Your task to perform on an android device: change notification settings in the gmail app Image 0: 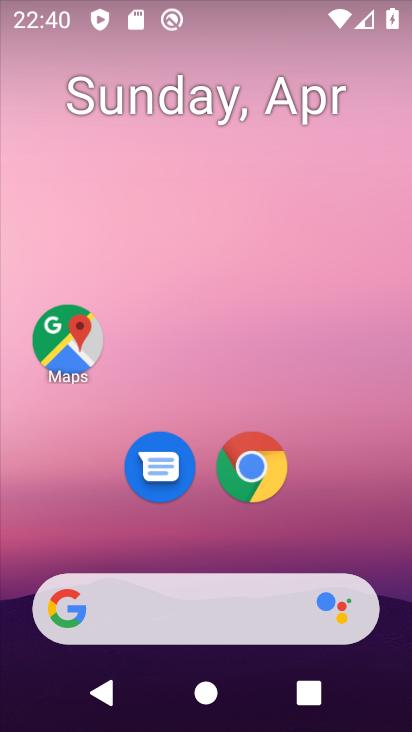
Step 0: drag from (203, 530) to (218, 70)
Your task to perform on an android device: change notification settings in the gmail app Image 1: 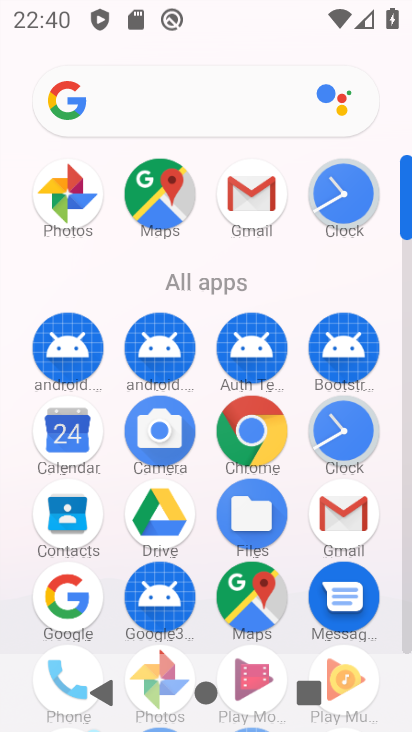
Step 1: click (249, 195)
Your task to perform on an android device: change notification settings in the gmail app Image 2: 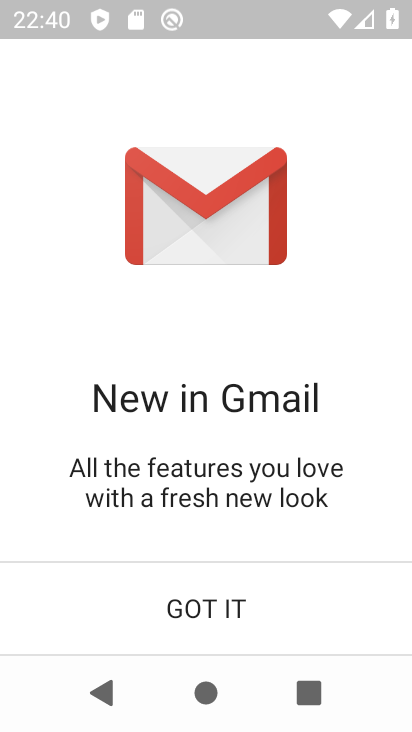
Step 2: click (191, 610)
Your task to perform on an android device: change notification settings in the gmail app Image 3: 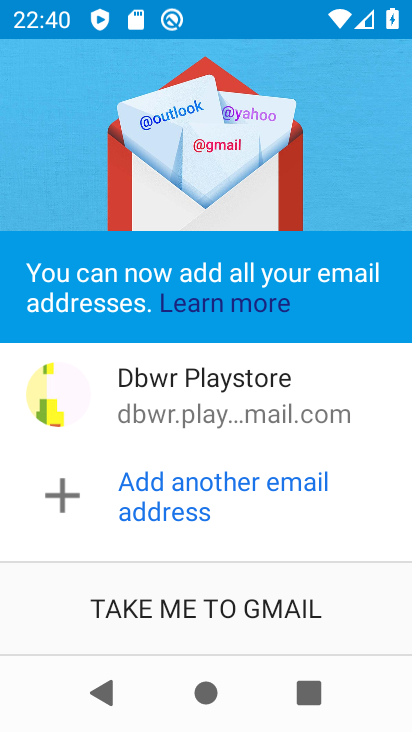
Step 3: click (191, 598)
Your task to perform on an android device: change notification settings in the gmail app Image 4: 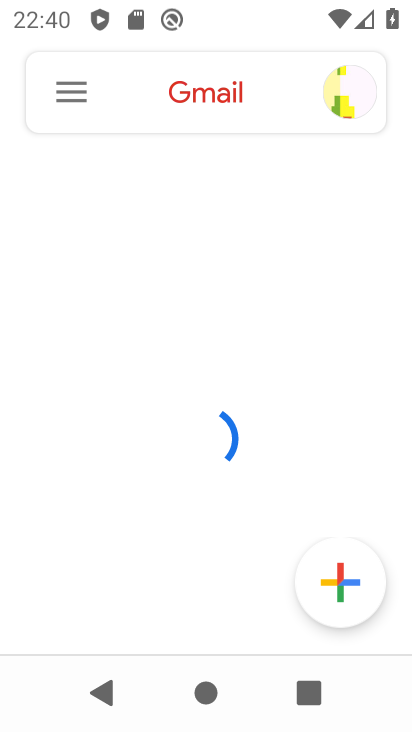
Step 4: click (68, 86)
Your task to perform on an android device: change notification settings in the gmail app Image 5: 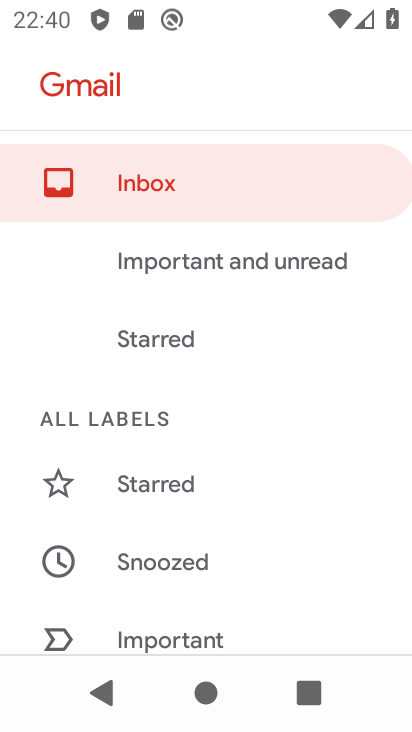
Step 5: click (143, 431)
Your task to perform on an android device: change notification settings in the gmail app Image 6: 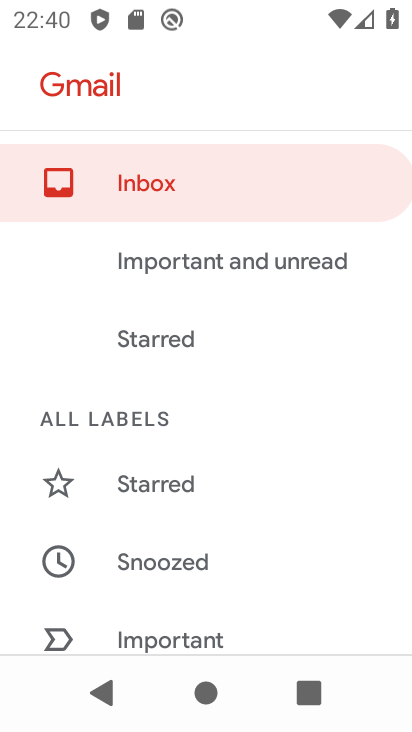
Step 6: drag from (161, 550) to (161, 26)
Your task to perform on an android device: change notification settings in the gmail app Image 7: 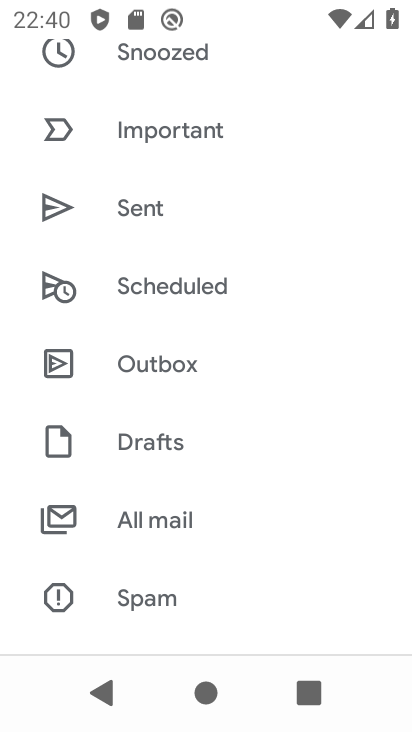
Step 7: drag from (173, 541) to (267, 111)
Your task to perform on an android device: change notification settings in the gmail app Image 8: 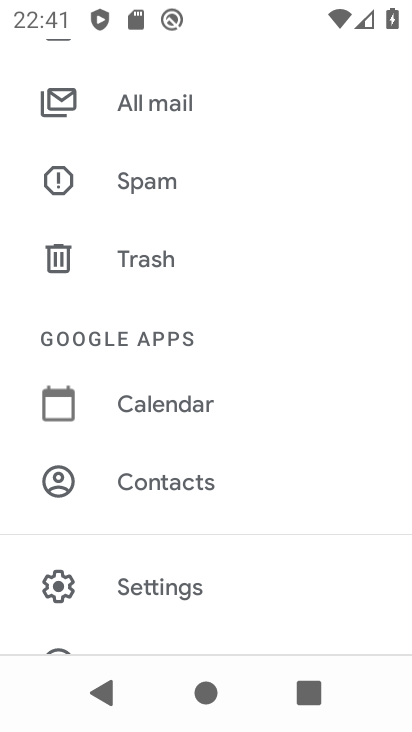
Step 8: click (165, 593)
Your task to perform on an android device: change notification settings in the gmail app Image 9: 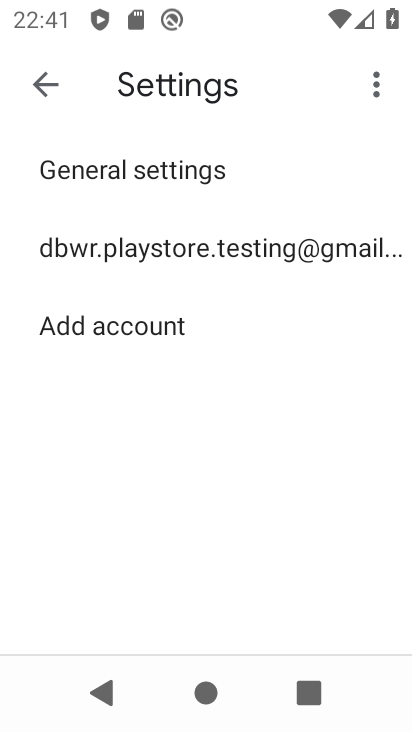
Step 9: click (171, 232)
Your task to perform on an android device: change notification settings in the gmail app Image 10: 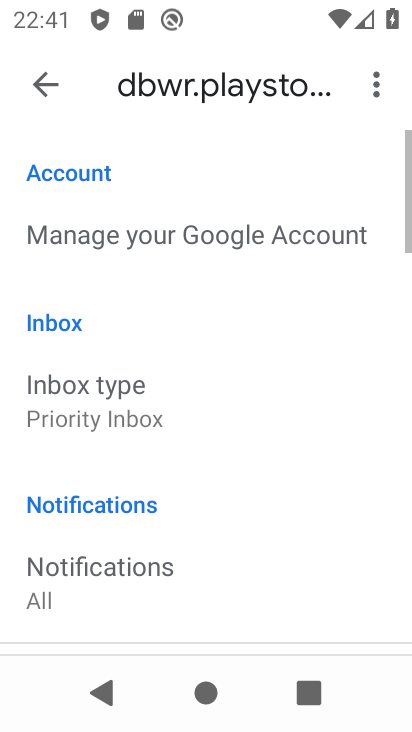
Step 10: click (130, 587)
Your task to perform on an android device: change notification settings in the gmail app Image 11: 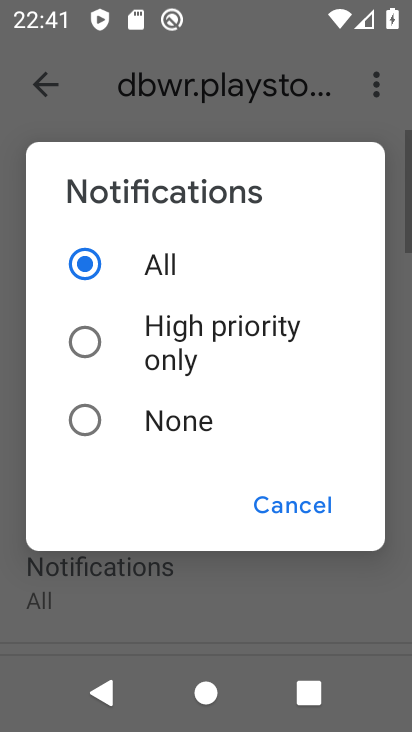
Step 11: click (98, 415)
Your task to perform on an android device: change notification settings in the gmail app Image 12: 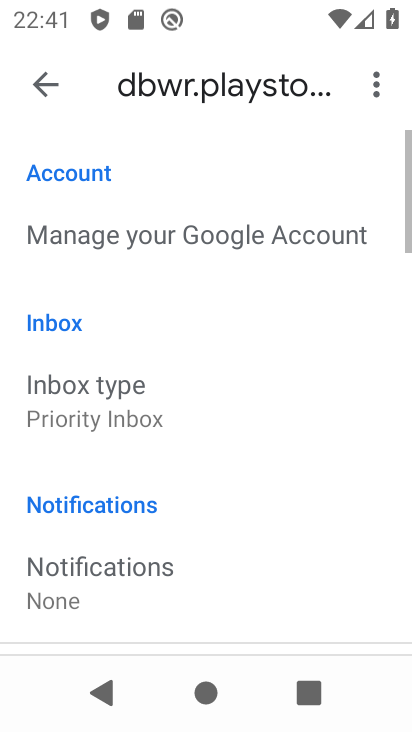
Step 12: task complete